Your task to perform on an android device: check storage Image 0: 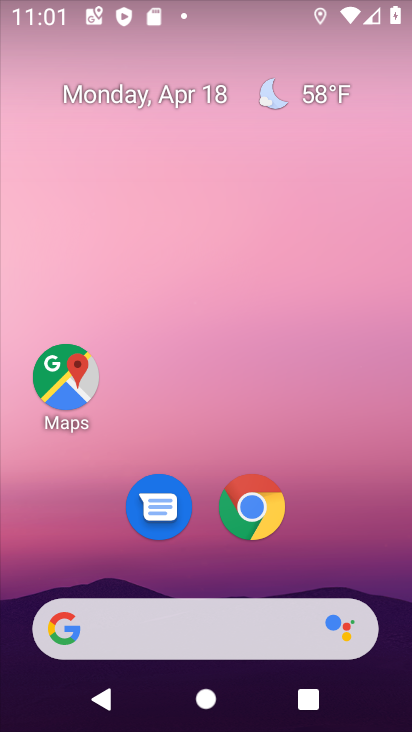
Step 0: drag from (213, 451) to (283, 8)
Your task to perform on an android device: check storage Image 1: 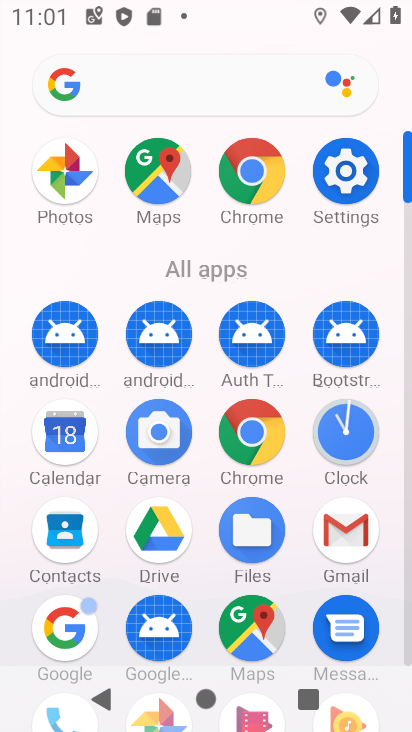
Step 1: click (354, 172)
Your task to perform on an android device: check storage Image 2: 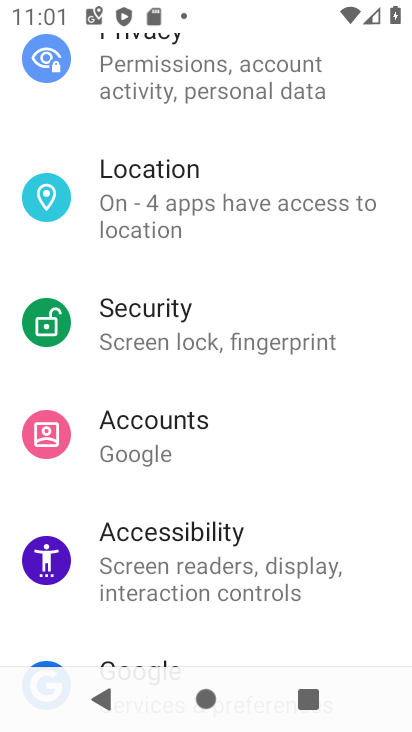
Step 2: drag from (223, 249) to (215, 629)
Your task to perform on an android device: check storage Image 3: 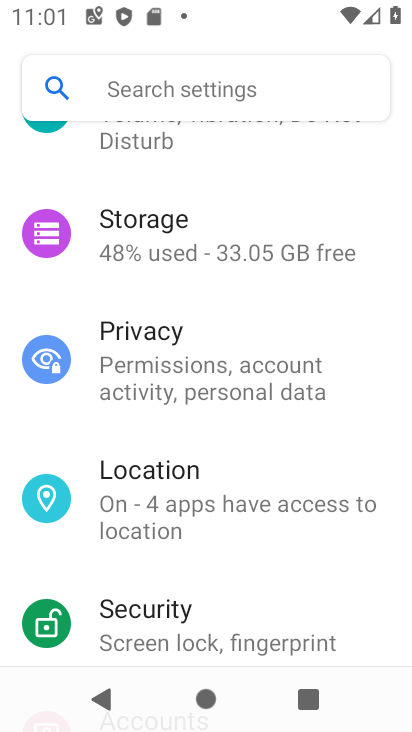
Step 3: click (216, 260)
Your task to perform on an android device: check storage Image 4: 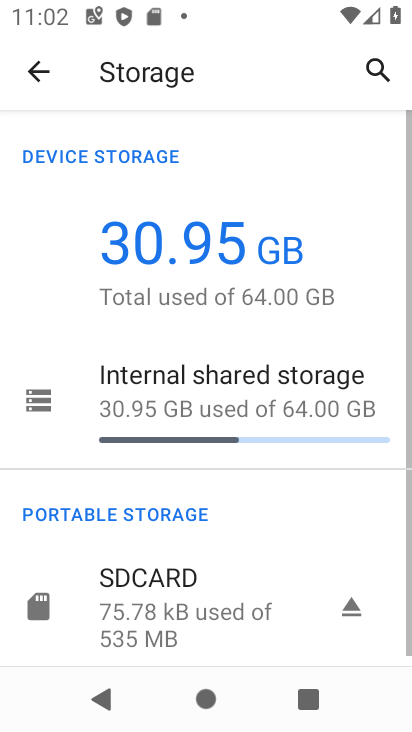
Step 4: click (228, 398)
Your task to perform on an android device: check storage Image 5: 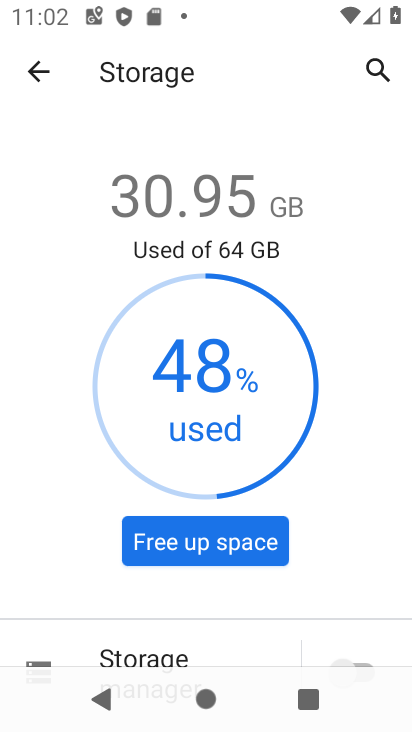
Step 5: task complete